Your task to perform on an android device: Open the map Image 0: 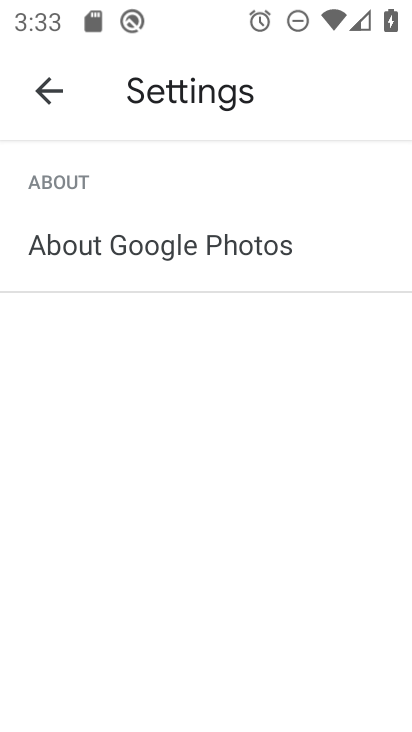
Step 0: press home button
Your task to perform on an android device: Open the map Image 1: 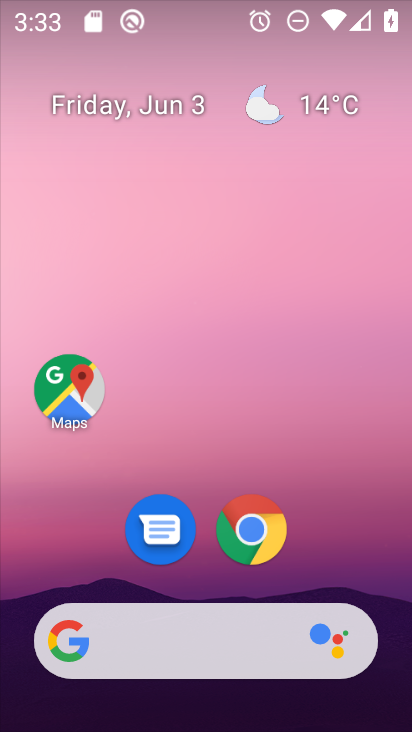
Step 1: drag from (372, 587) to (353, 188)
Your task to perform on an android device: Open the map Image 2: 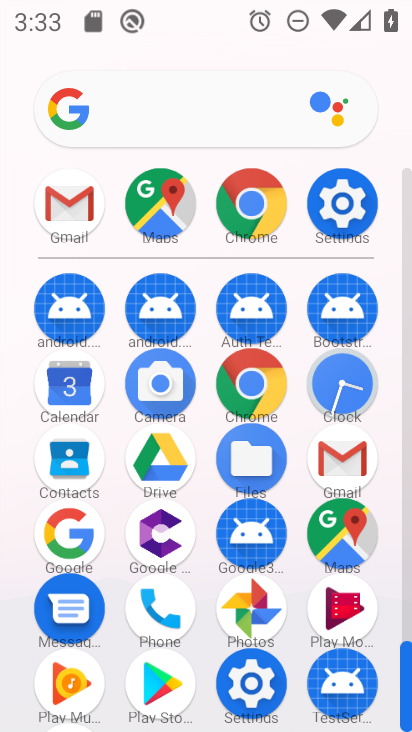
Step 2: click (366, 540)
Your task to perform on an android device: Open the map Image 3: 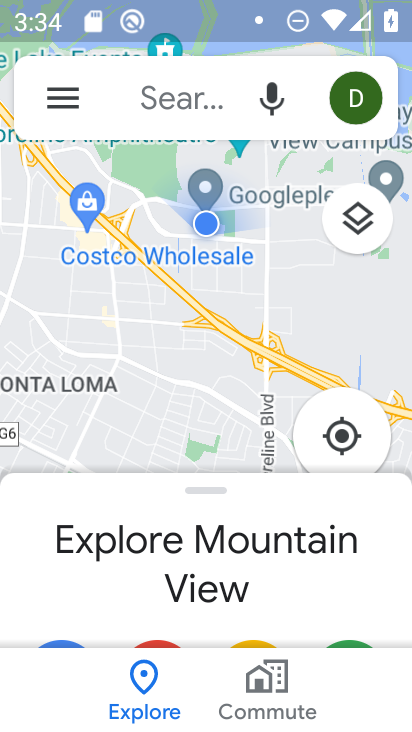
Step 3: task complete